Your task to perform on an android device: empty trash in the gmail app Image 0: 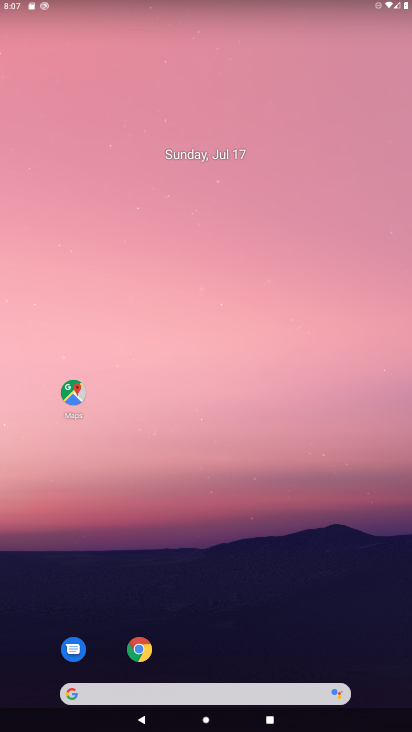
Step 0: drag from (179, 670) to (163, 97)
Your task to perform on an android device: empty trash in the gmail app Image 1: 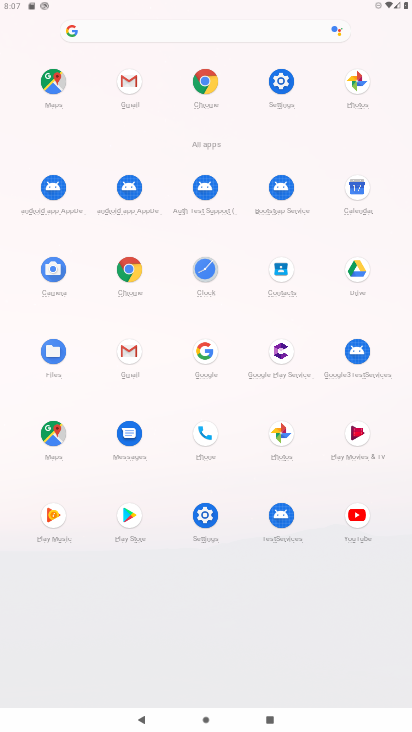
Step 1: click (114, 350)
Your task to perform on an android device: empty trash in the gmail app Image 2: 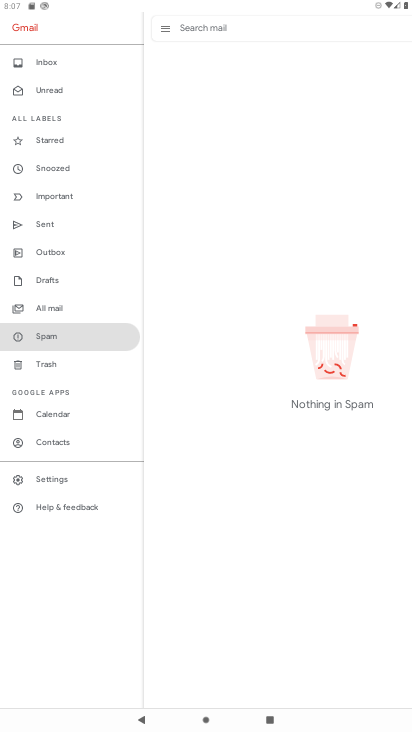
Step 2: click (62, 361)
Your task to perform on an android device: empty trash in the gmail app Image 3: 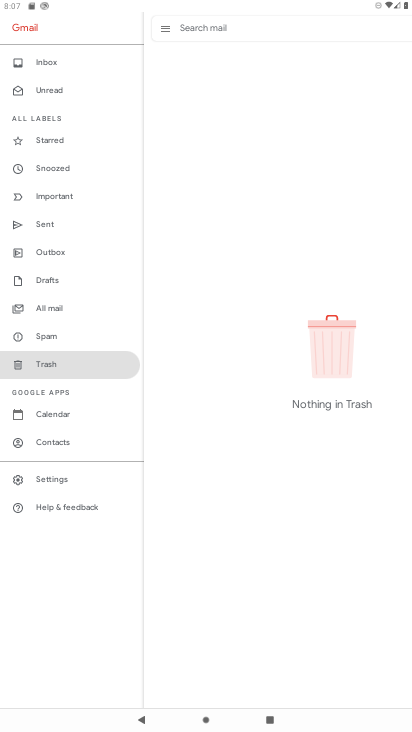
Step 3: task complete